Your task to perform on an android device: Find coffee shops on Maps Image 0: 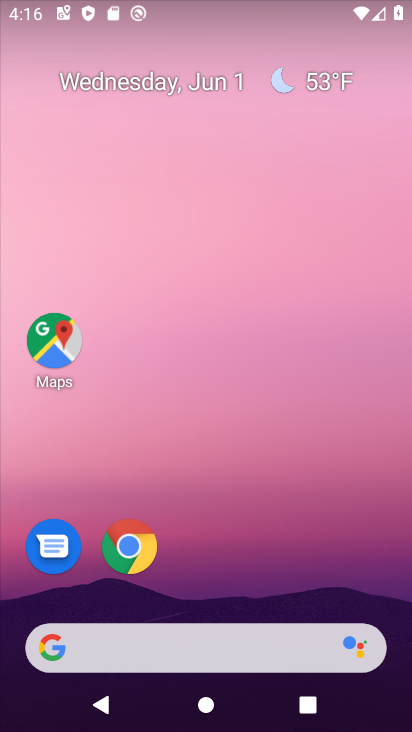
Step 0: click (56, 340)
Your task to perform on an android device: Find coffee shops on Maps Image 1: 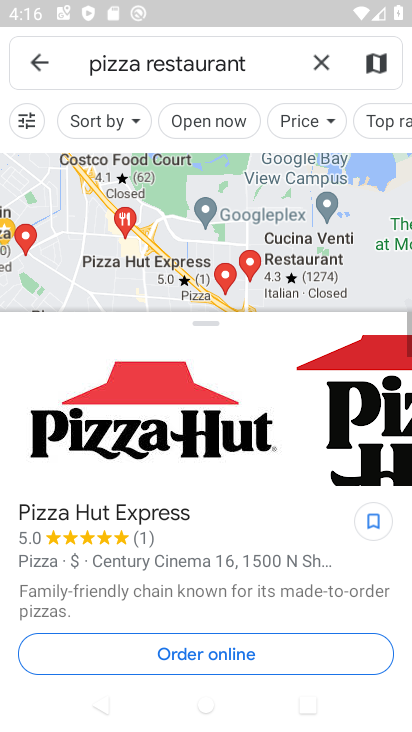
Step 1: click (318, 57)
Your task to perform on an android device: Find coffee shops on Maps Image 2: 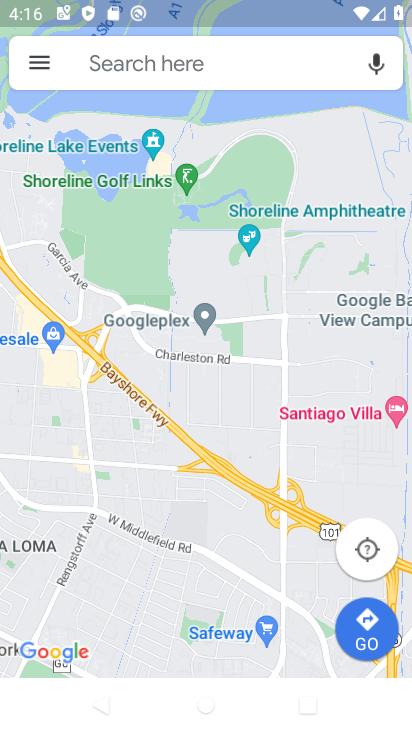
Step 2: click (143, 59)
Your task to perform on an android device: Find coffee shops on Maps Image 3: 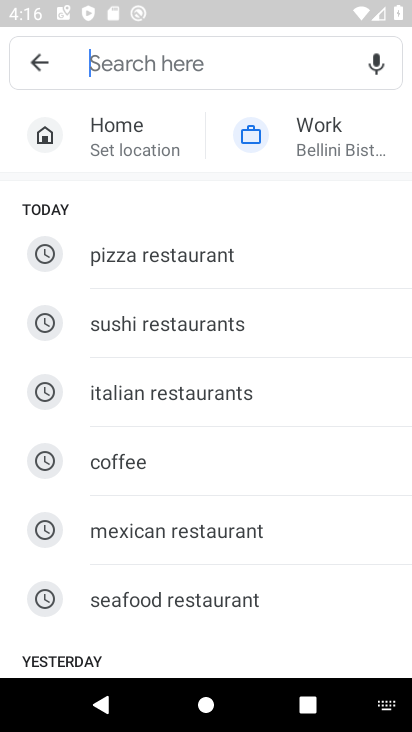
Step 3: type "coffee shops"
Your task to perform on an android device: Find coffee shops on Maps Image 4: 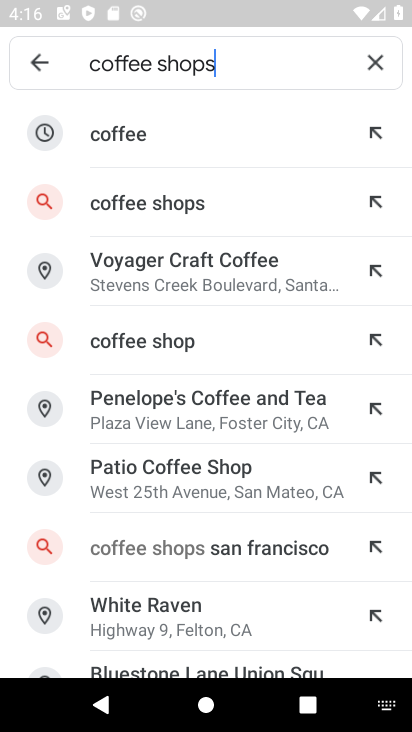
Step 4: click (168, 197)
Your task to perform on an android device: Find coffee shops on Maps Image 5: 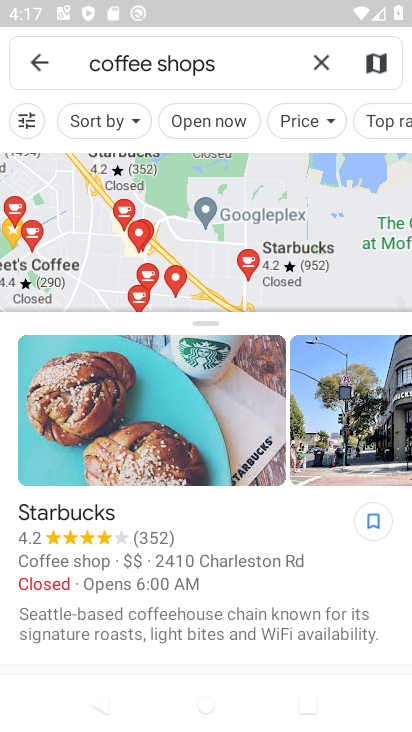
Step 5: task complete